Your task to perform on an android device: See recent photos Image 0: 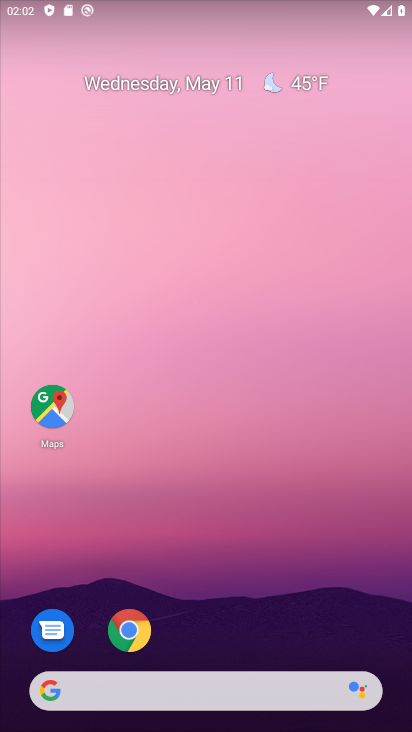
Step 0: click (216, 144)
Your task to perform on an android device: See recent photos Image 1: 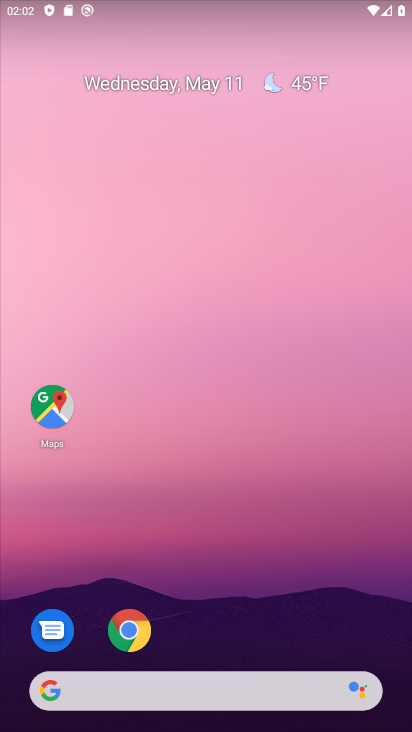
Step 1: drag from (189, 713) to (189, 93)
Your task to perform on an android device: See recent photos Image 2: 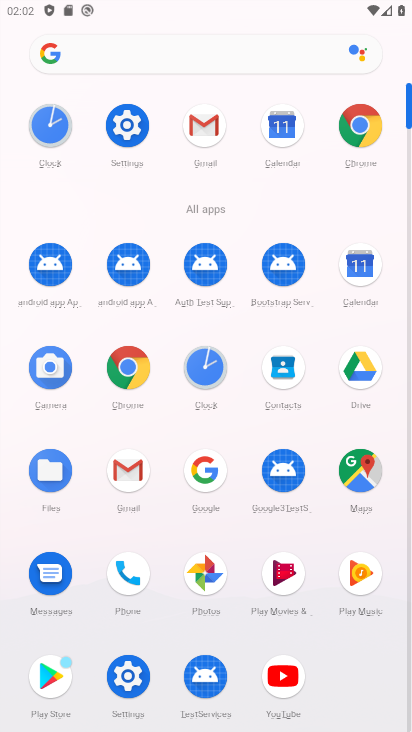
Step 2: click (200, 577)
Your task to perform on an android device: See recent photos Image 3: 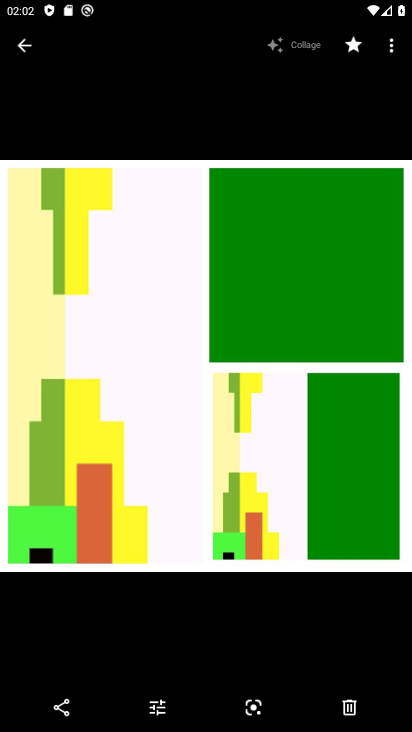
Step 3: click (22, 49)
Your task to perform on an android device: See recent photos Image 4: 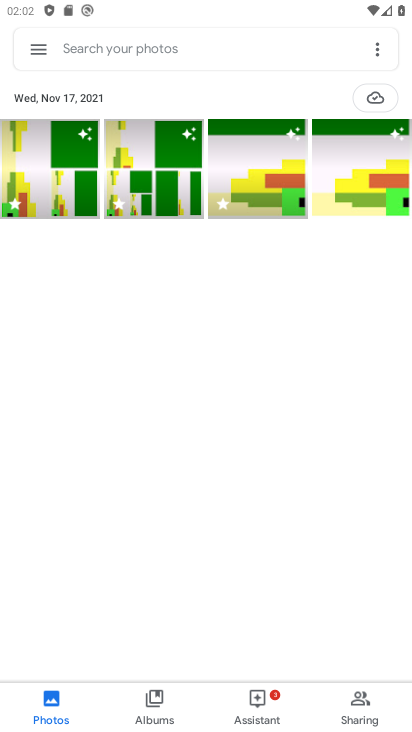
Step 4: task complete